Your task to perform on an android device: open a new tab in the chrome app Image 0: 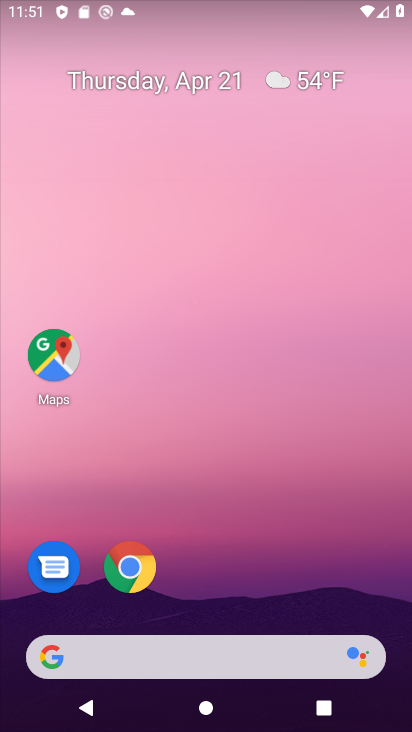
Step 0: click (333, 63)
Your task to perform on an android device: open a new tab in the chrome app Image 1: 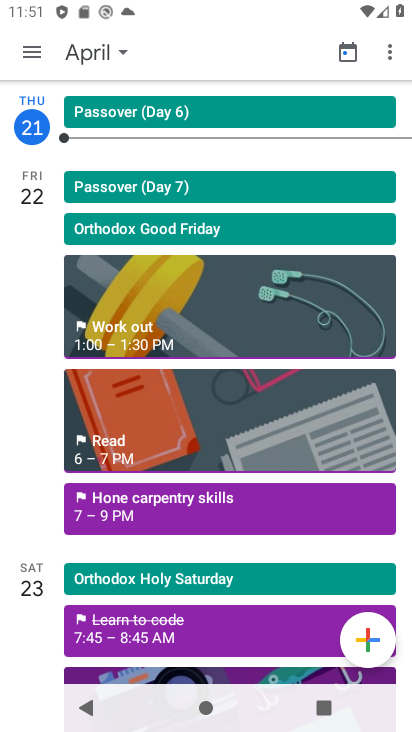
Step 1: press home button
Your task to perform on an android device: open a new tab in the chrome app Image 2: 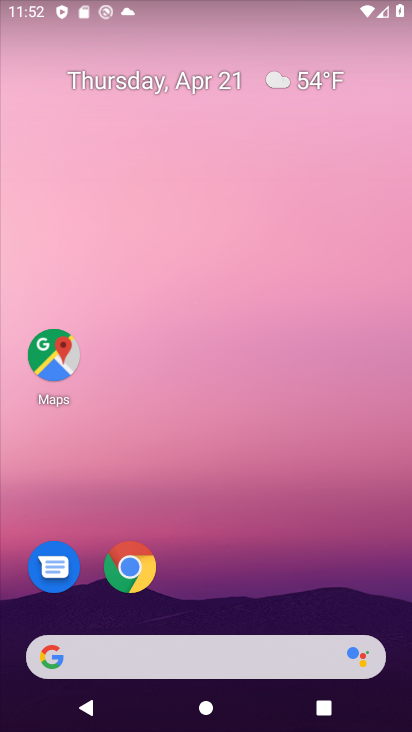
Step 2: click (145, 583)
Your task to perform on an android device: open a new tab in the chrome app Image 3: 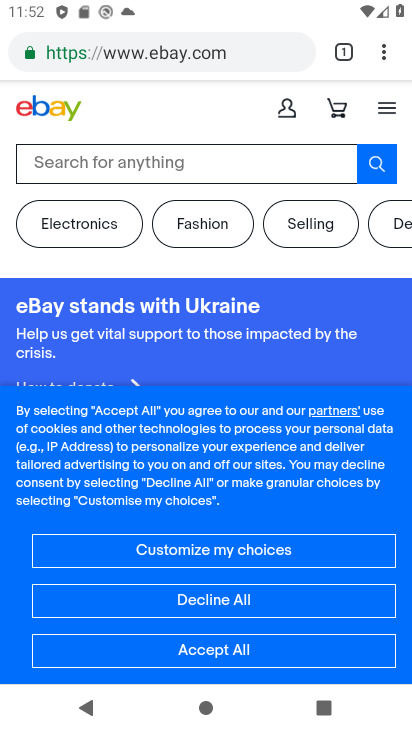
Step 3: drag from (346, 213) to (342, 276)
Your task to perform on an android device: open a new tab in the chrome app Image 4: 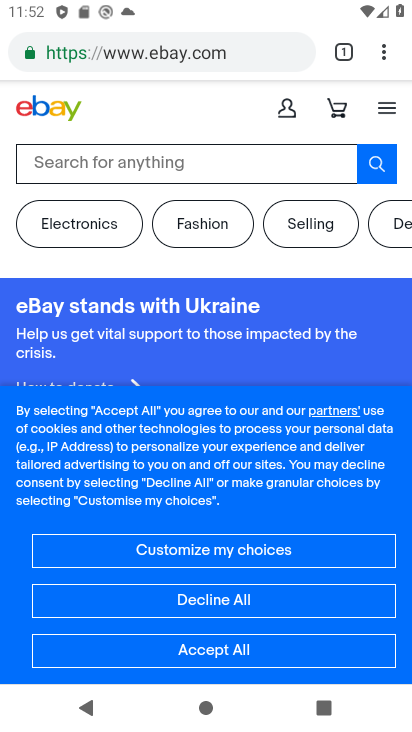
Step 4: drag from (348, 52) to (377, 205)
Your task to perform on an android device: open a new tab in the chrome app Image 5: 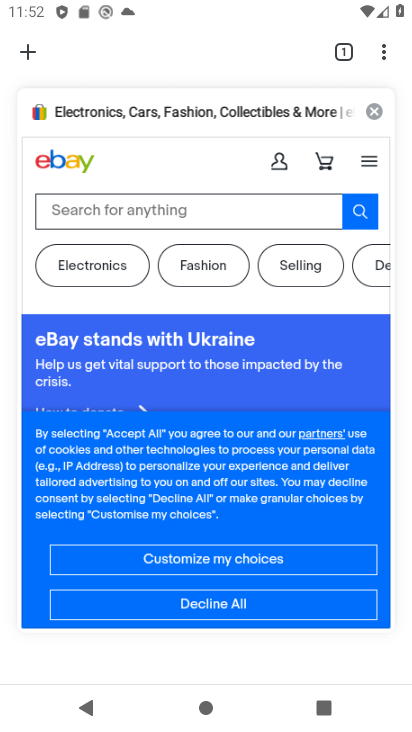
Step 5: click (36, 55)
Your task to perform on an android device: open a new tab in the chrome app Image 6: 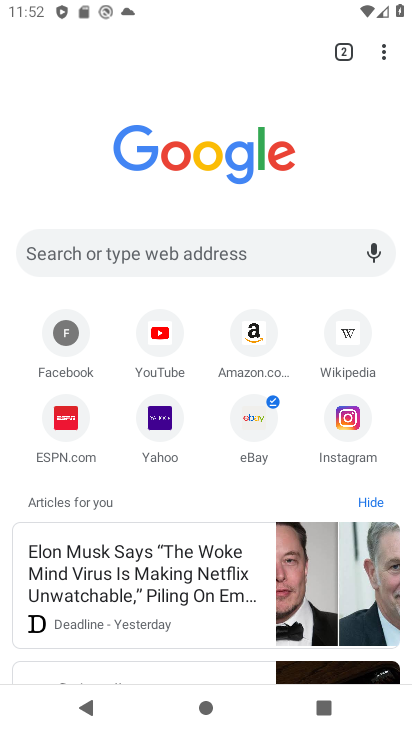
Step 6: task complete